Your task to perform on an android device: turn on wifi Image 0: 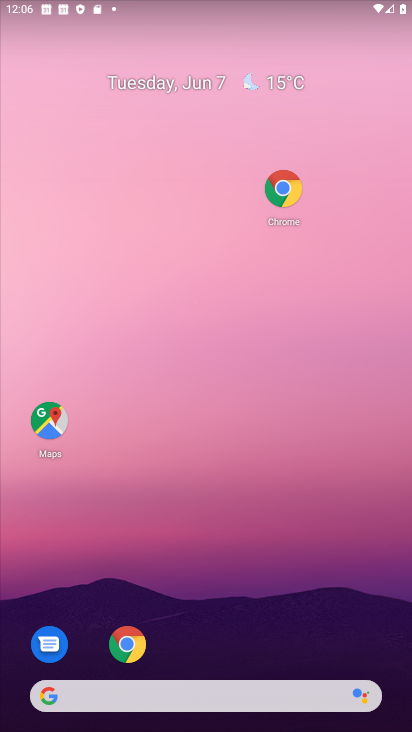
Step 0: click (288, 574)
Your task to perform on an android device: turn on wifi Image 1: 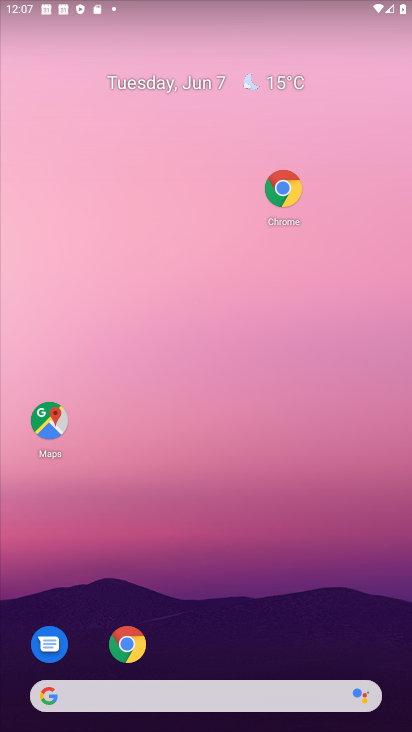
Step 1: drag from (267, 615) to (246, 126)
Your task to perform on an android device: turn on wifi Image 2: 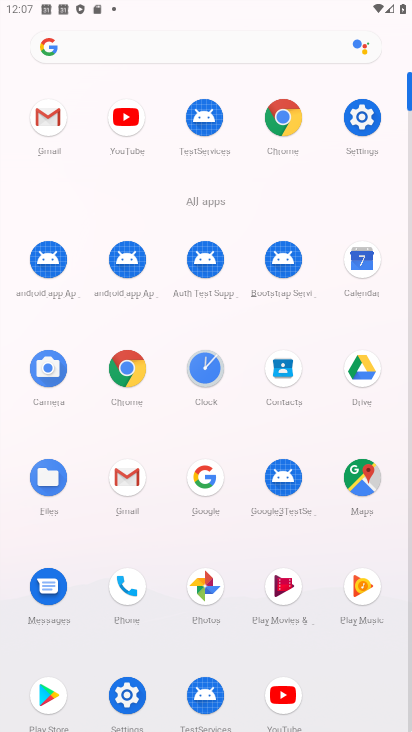
Step 2: click (358, 127)
Your task to perform on an android device: turn on wifi Image 3: 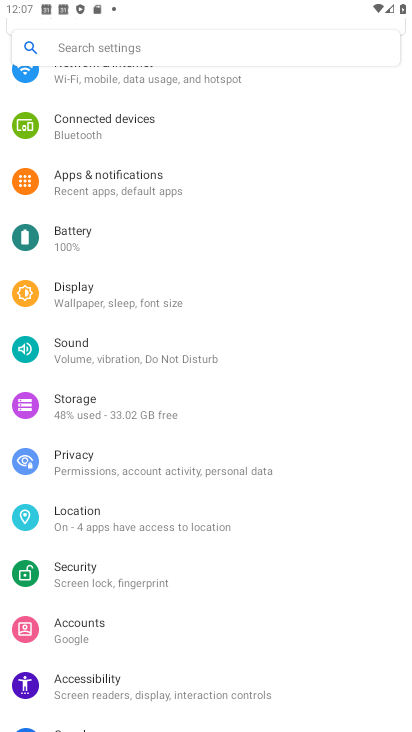
Step 3: click (141, 76)
Your task to perform on an android device: turn on wifi Image 4: 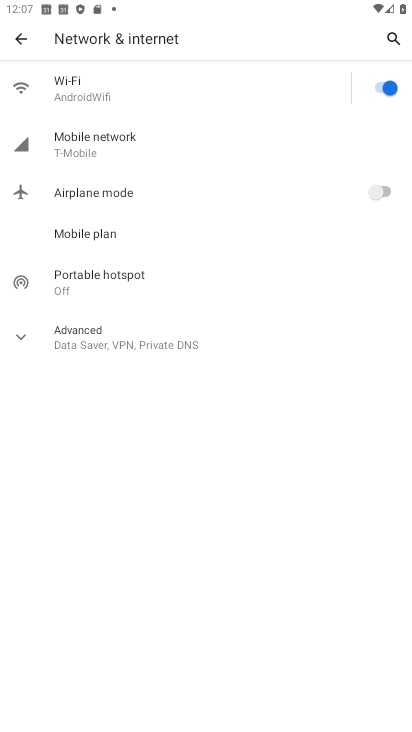
Step 4: task complete